Your task to perform on an android device: Show the shopping cart on costco.com. Image 0: 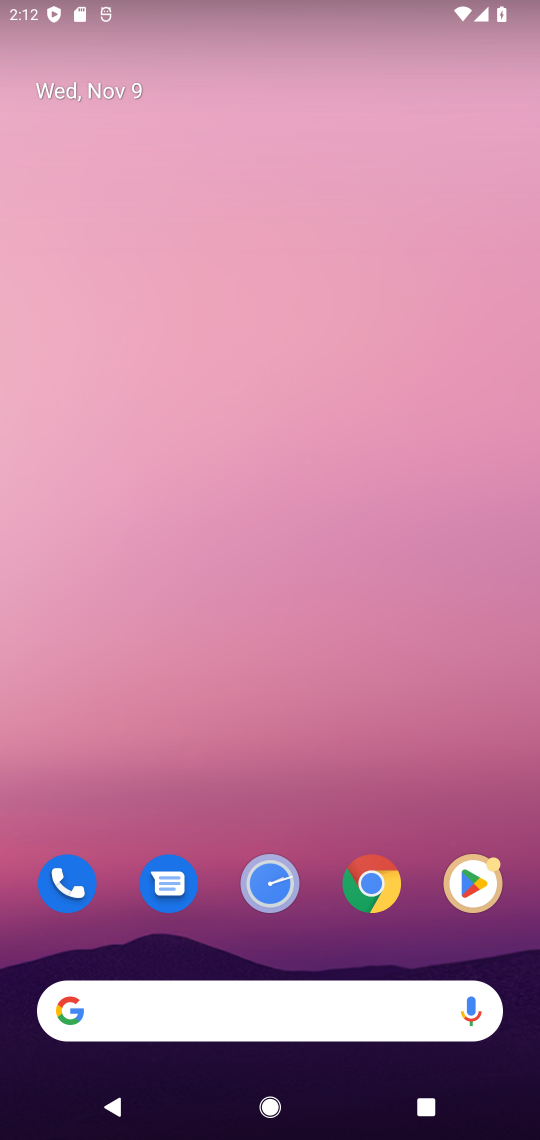
Step 0: click (378, 884)
Your task to perform on an android device: Show the shopping cart on costco.com. Image 1: 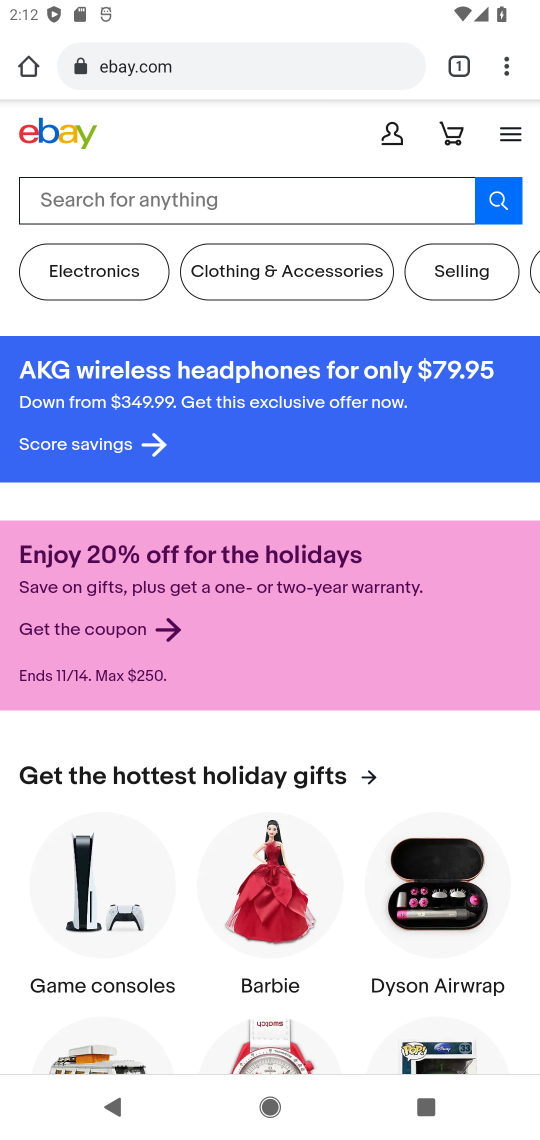
Step 1: click (455, 68)
Your task to perform on an android device: Show the shopping cart on costco.com. Image 2: 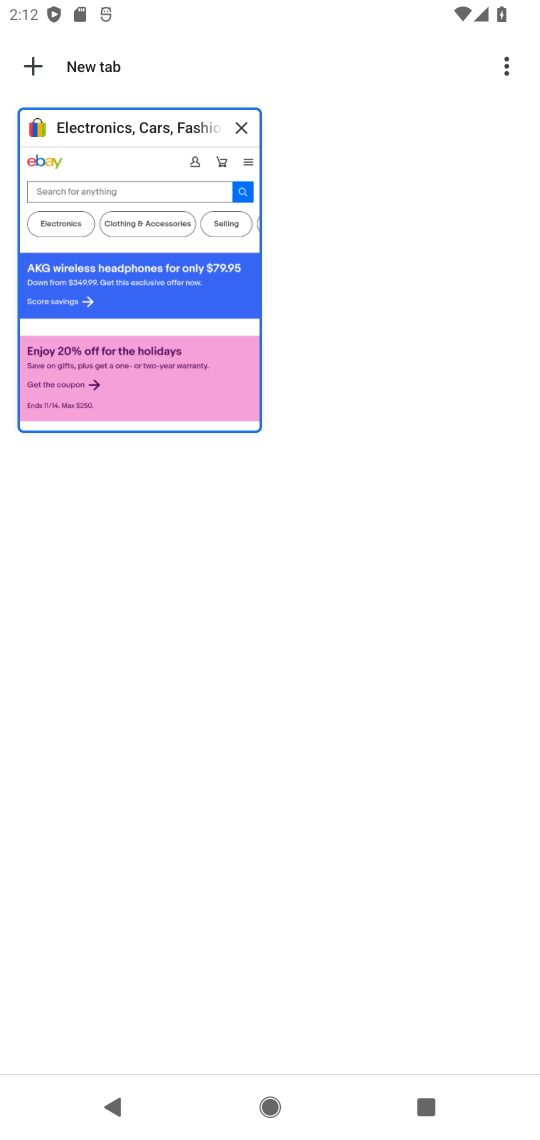
Step 2: click (33, 66)
Your task to perform on an android device: Show the shopping cart on costco.com. Image 3: 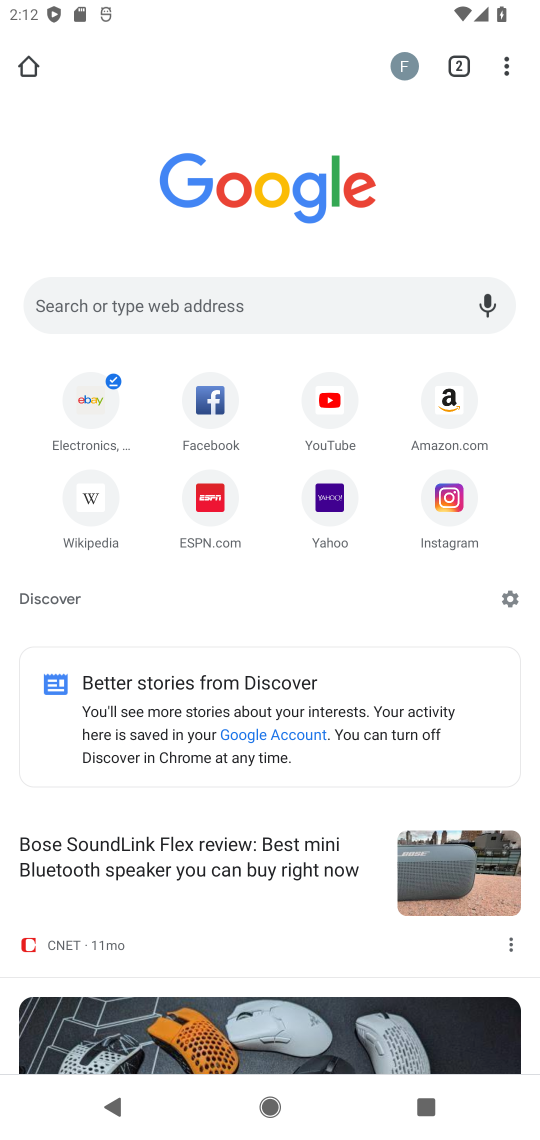
Step 3: click (184, 311)
Your task to perform on an android device: Show the shopping cart on costco.com. Image 4: 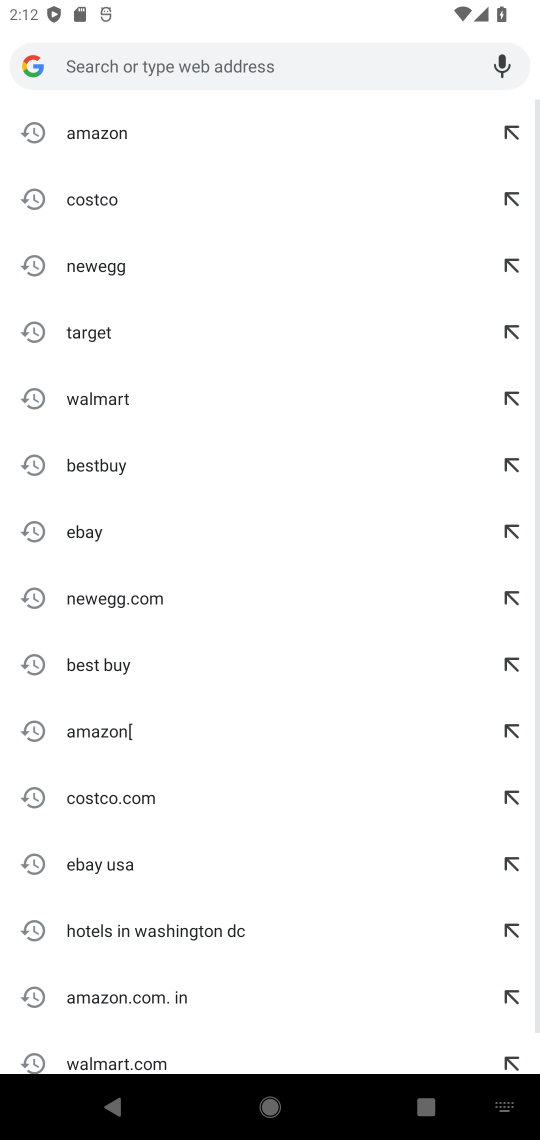
Step 4: click (79, 201)
Your task to perform on an android device: Show the shopping cart on costco.com. Image 5: 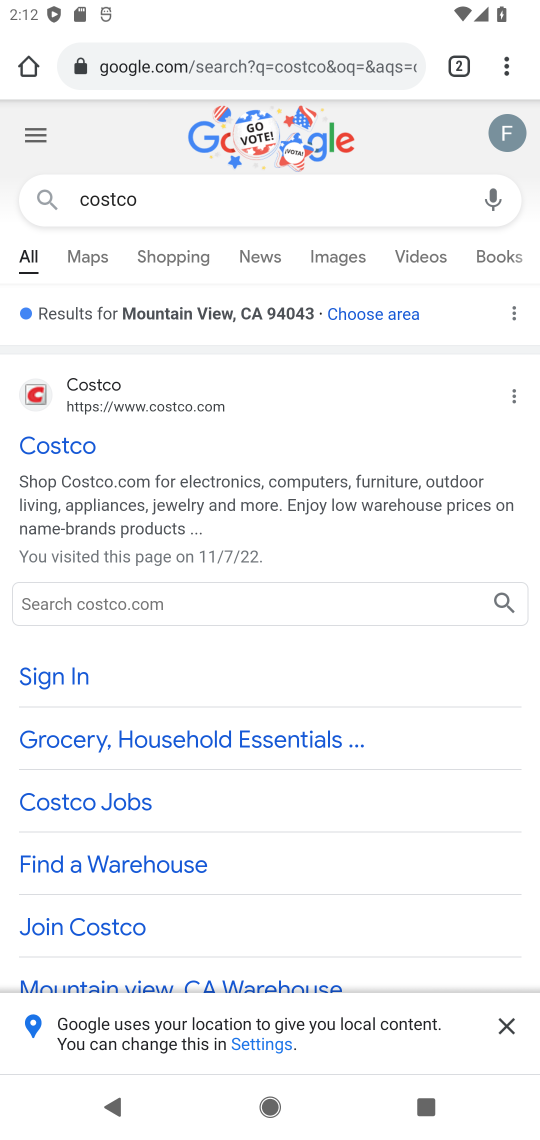
Step 5: click (61, 443)
Your task to perform on an android device: Show the shopping cart on costco.com. Image 6: 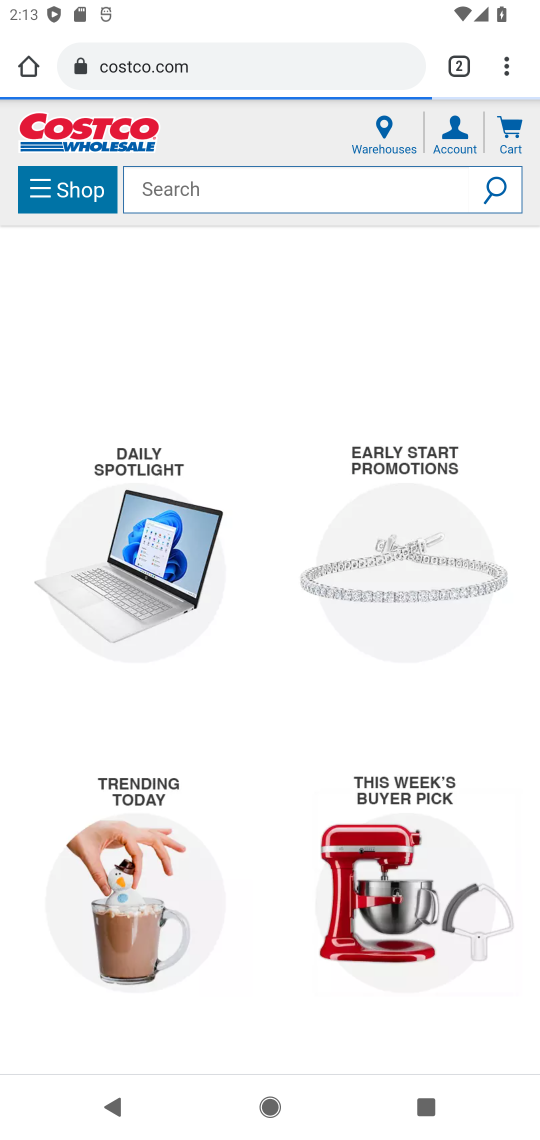
Step 6: click (502, 129)
Your task to perform on an android device: Show the shopping cart on costco.com. Image 7: 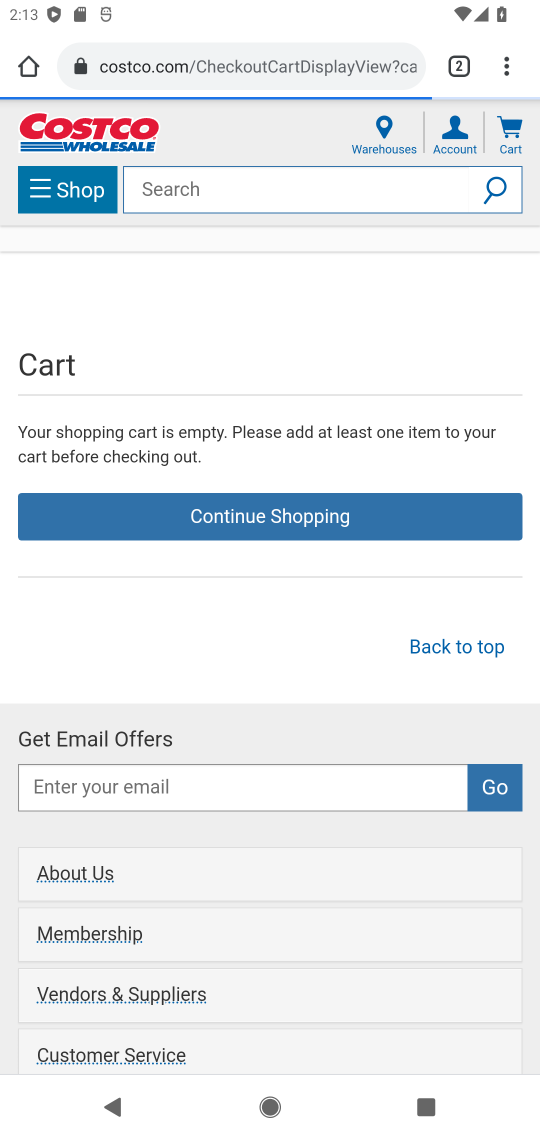
Step 7: task complete